Your task to perform on an android device: empty trash in the gmail app Image 0: 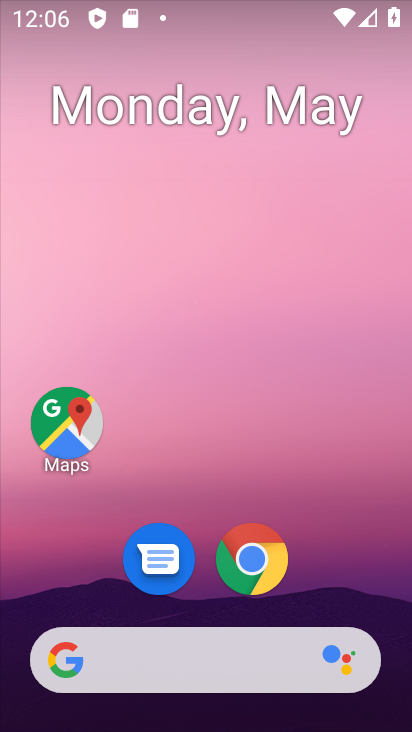
Step 0: drag from (205, 723) to (184, 22)
Your task to perform on an android device: empty trash in the gmail app Image 1: 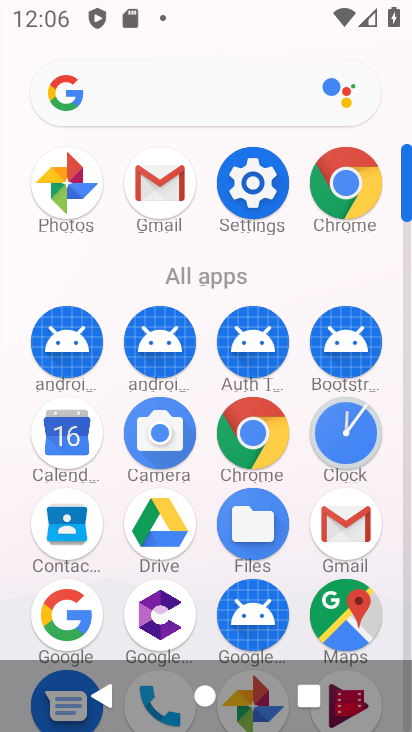
Step 1: click (133, 185)
Your task to perform on an android device: empty trash in the gmail app Image 2: 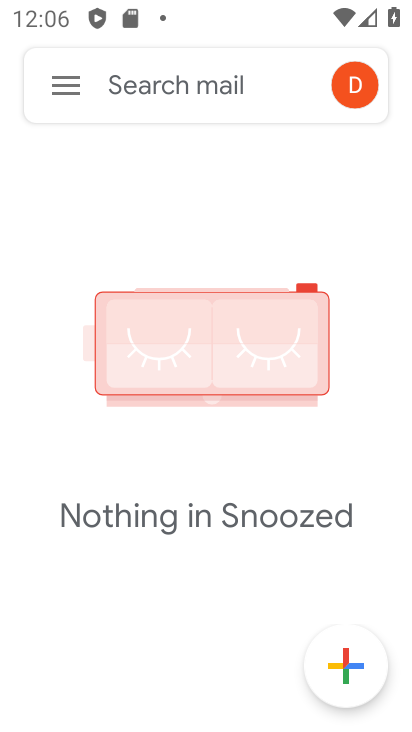
Step 2: click (62, 86)
Your task to perform on an android device: empty trash in the gmail app Image 3: 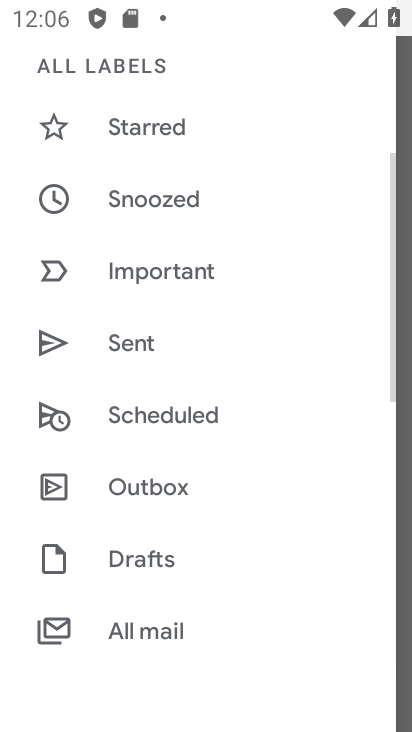
Step 3: drag from (258, 608) to (212, 183)
Your task to perform on an android device: empty trash in the gmail app Image 4: 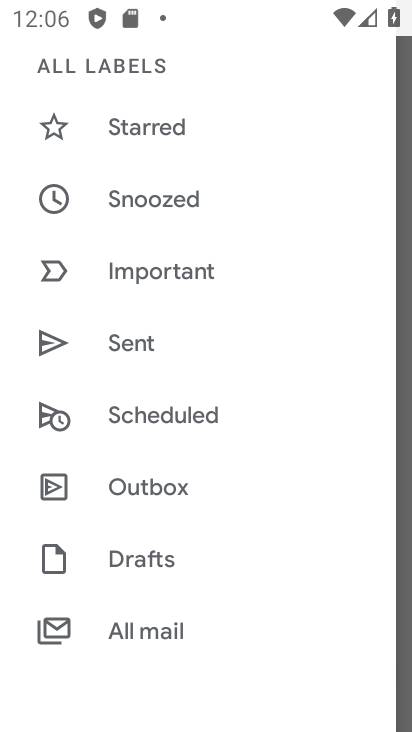
Step 4: drag from (228, 620) to (208, 22)
Your task to perform on an android device: empty trash in the gmail app Image 5: 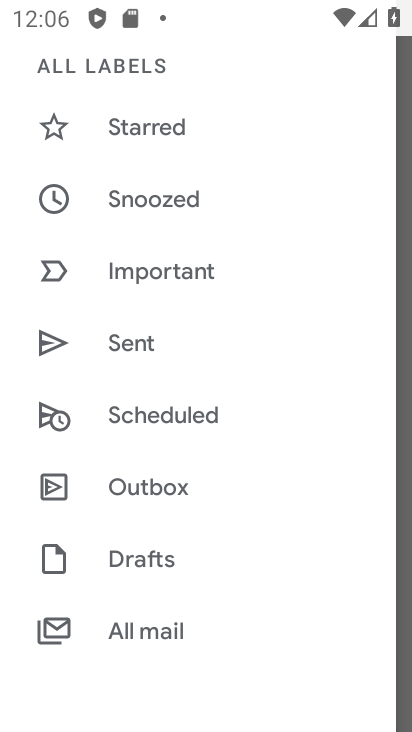
Step 5: drag from (120, 556) to (209, 4)
Your task to perform on an android device: empty trash in the gmail app Image 6: 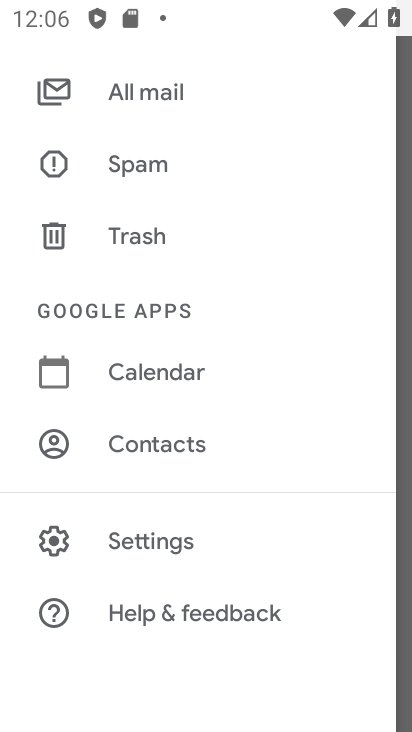
Step 6: click (188, 222)
Your task to perform on an android device: empty trash in the gmail app Image 7: 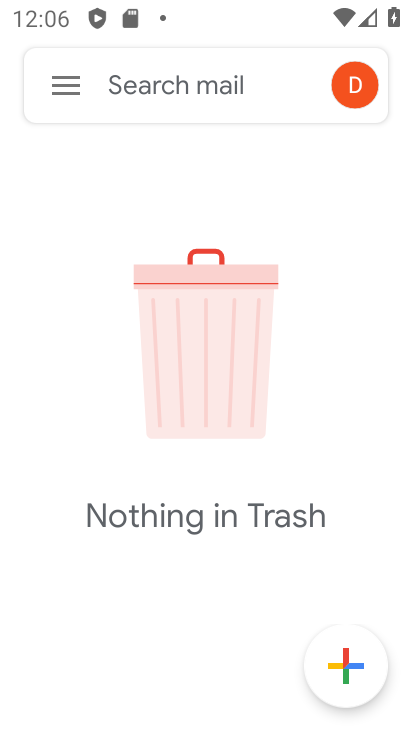
Step 7: task complete